Your task to perform on an android device: change the clock display to digital Image 0: 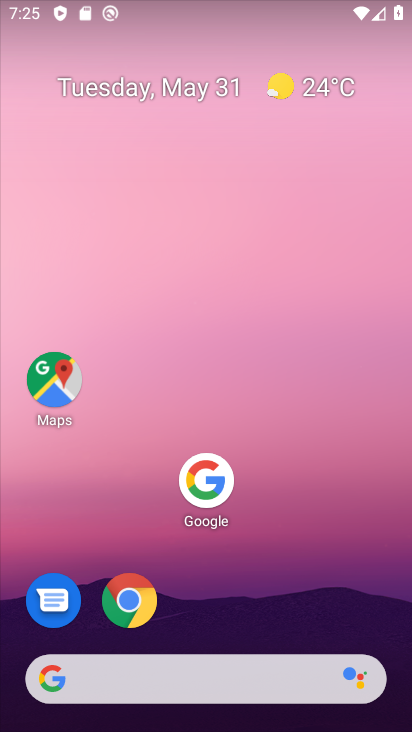
Step 0: drag from (257, 684) to (351, 184)
Your task to perform on an android device: change the clock display to digital Image 1: 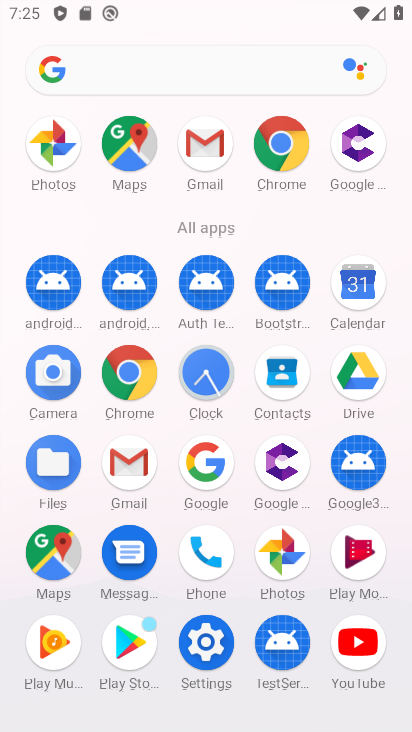
Step 1: click (208, 372)
Your task to perform on an android device: change the clock display to digital Image 2: 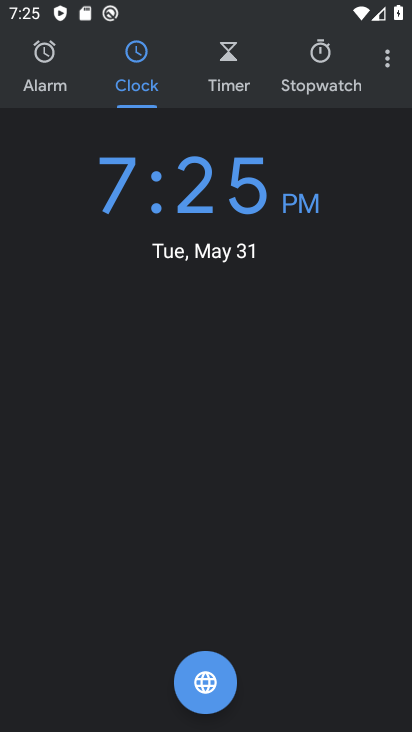
Step 2: click (385, 56)
Your task to perform on an android device: change the clock display to digital Image 3: 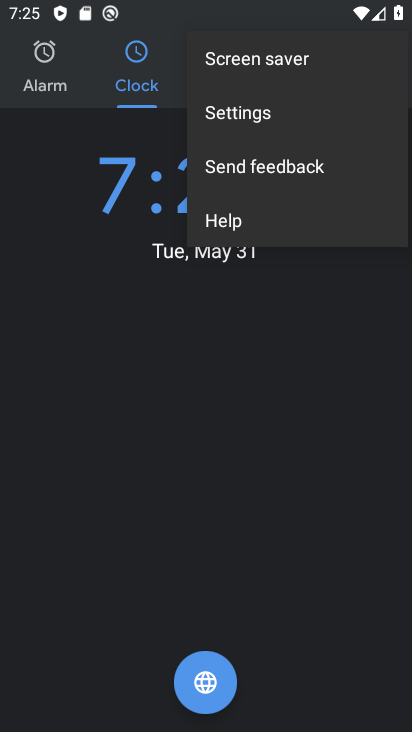
Step 3: click (248, 107)
Your task to perform on an android device: change the clock display to digital Image 4: 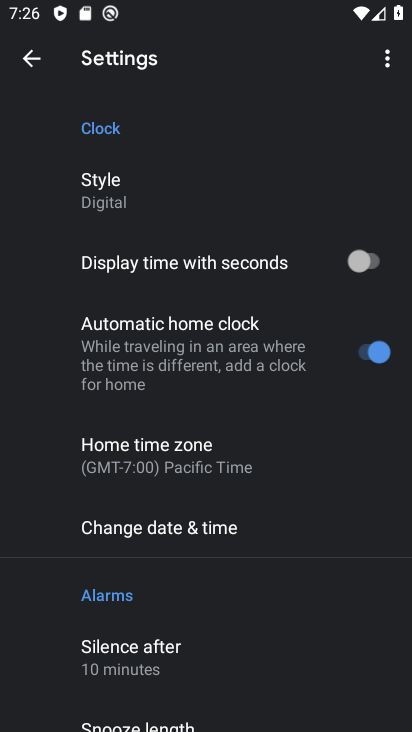
Step 4: task complete